Your task to perform on an android device: find photos in the google photos app Image 0: 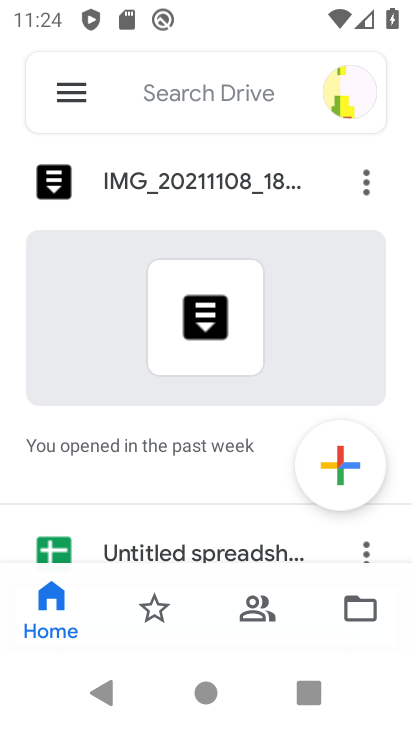
Step 0: drag from (187, 509) to (134, 236)
Your task to perform on an android device: find photos in the google photos app Image 1: 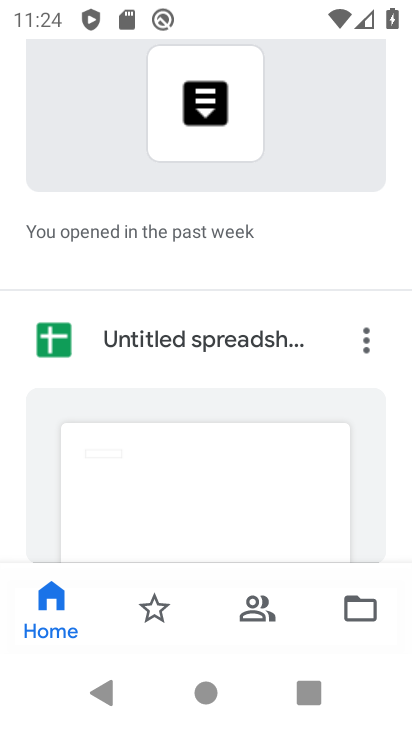
Step 1: press home button
Your task to perform on an android device: find photos in the google photos app Image 2: 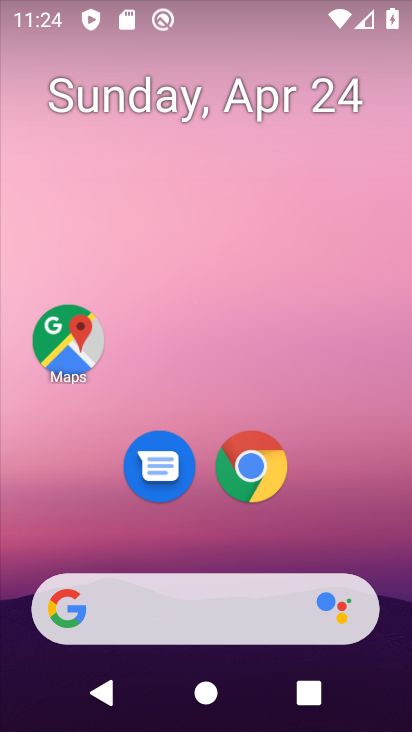
Step 2: drag from (335, 544) to (244, 1)
Your task to perform on an android device: find photos in the google photos app Image 3: 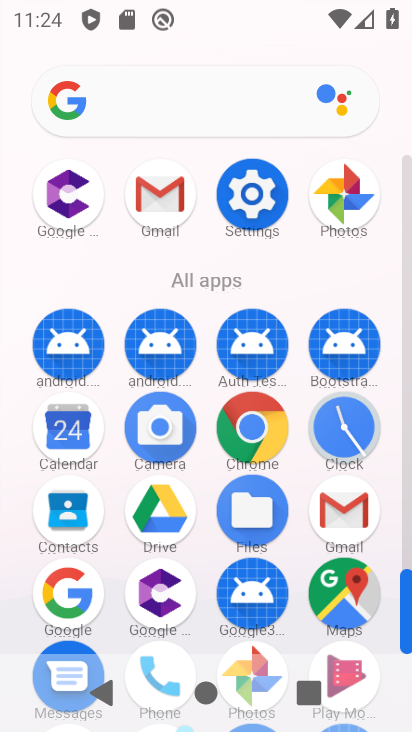
Step 3: click (335, 175)
Your task to perform on an android device: find photos in the google photos app Image 4: 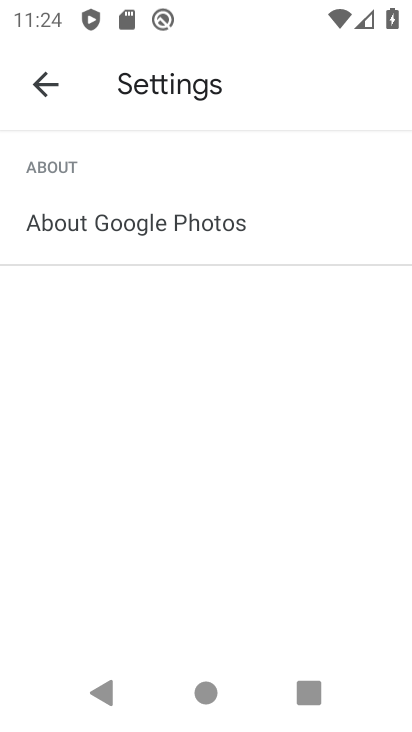
Step 4: click (44, 68)
Your task to perform on an android device: find photos in the google photos app Image 5: 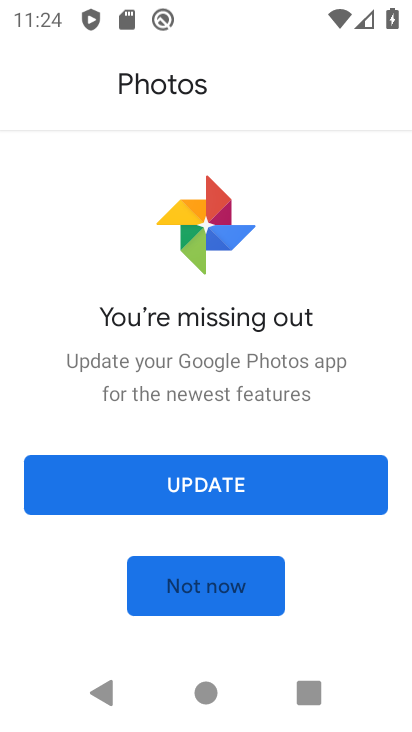
Step 5: click (216, 572)
Your task to perform on an android device: find photos in the google photos app Image 6: 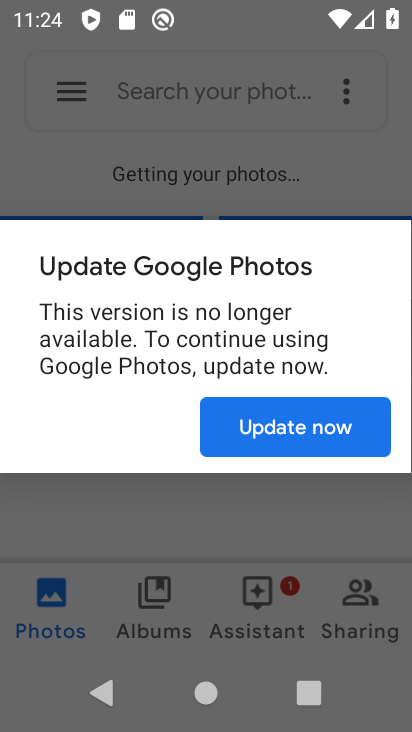
Step 6: click (239, 526)
Your task to perform on an android device: find photos in the google photos app Image 7: 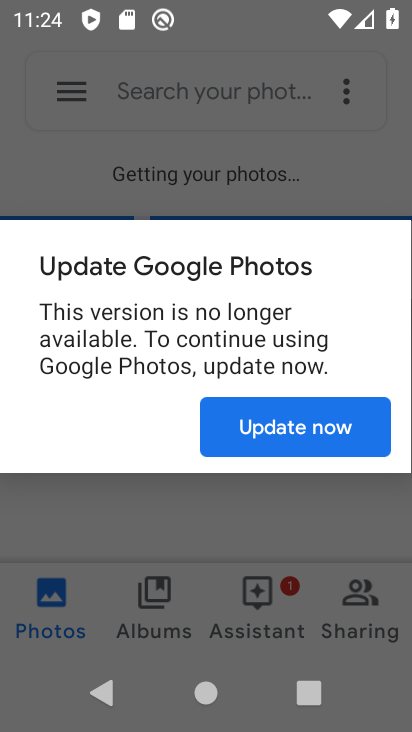
Step 7: click (284, 409)
Your task to perform on an android device: find photos in the google photos app Image 8: 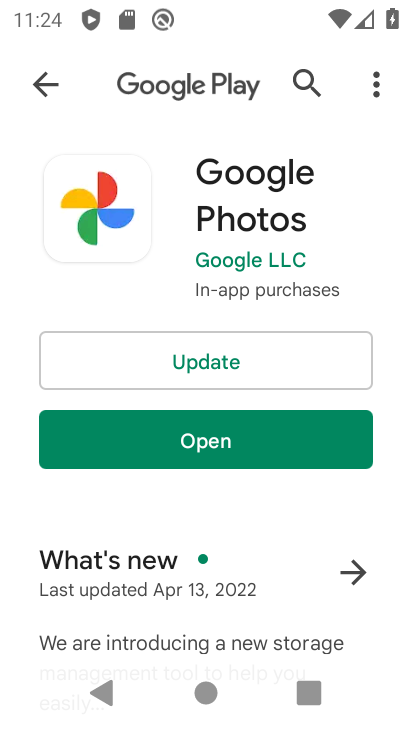
Step 8: click (223, 449)
Your task to perform on an android device: find photos in the google photos app Image 9: 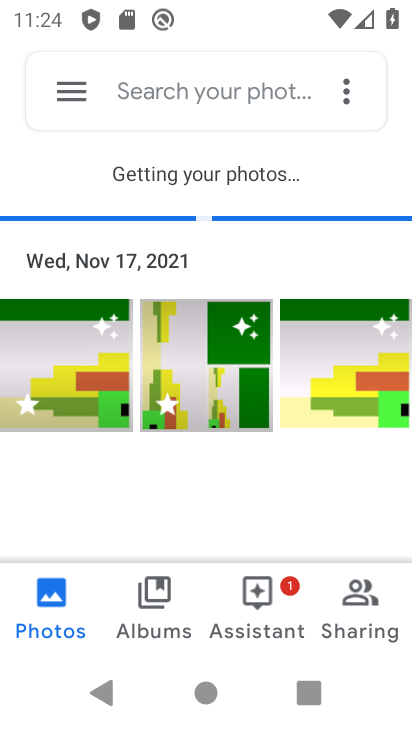
Step 9: task complete